Your task to perform on an android device: Open Wikipedia Image 0: 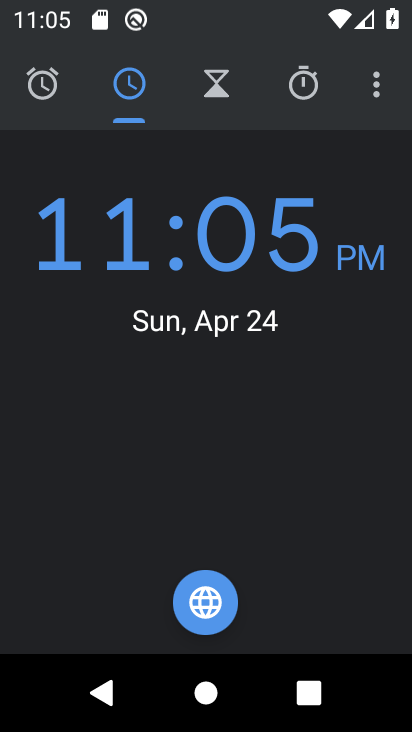
Step 0: drag from (266, 496) to (306, 24)
Your task to perform on an android device: Open Wikipedia Image 1: 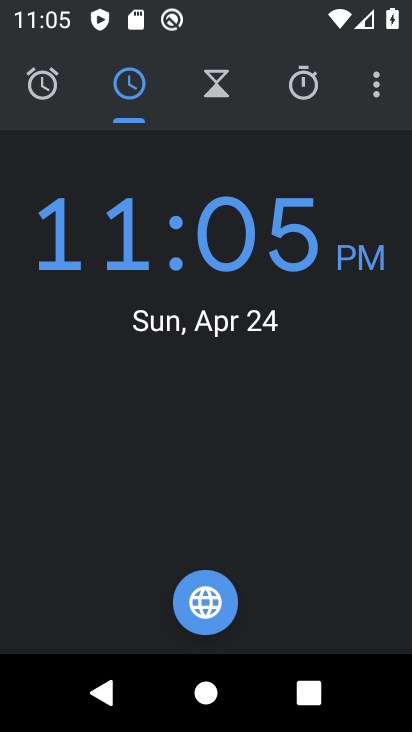
Step 1: press home button
Your task to perform on an android device: Open Wikipedia Image 2: 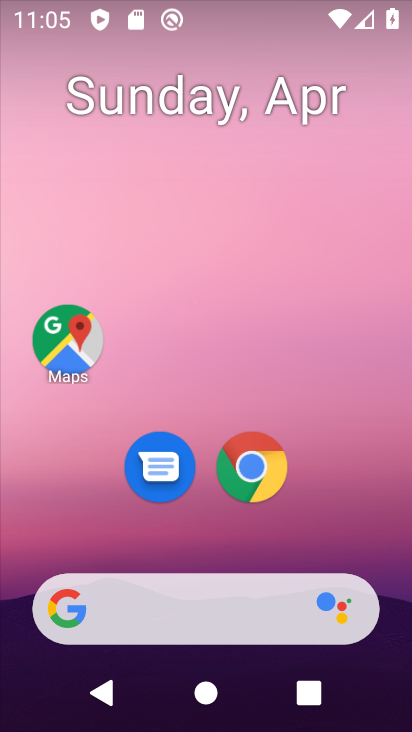
Step 2: click (172, 601)
Your task to perform on an android device: Open Wikipedia Image 3: 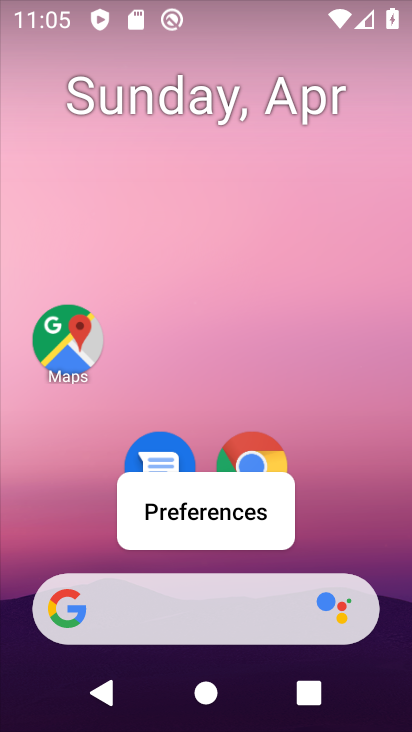
Step 3: click (199, 612)
Your task to perform on an android device: Open Wikipedia Image 4: 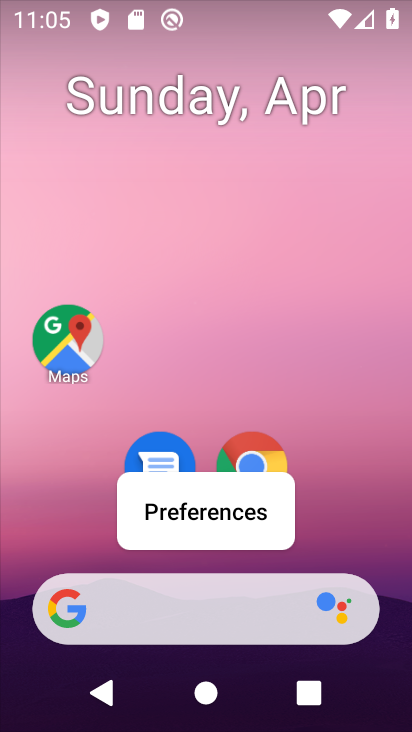
Step 4: click (373, 432)
Your task to perform on an android device: Open Wikipedia Image 5: 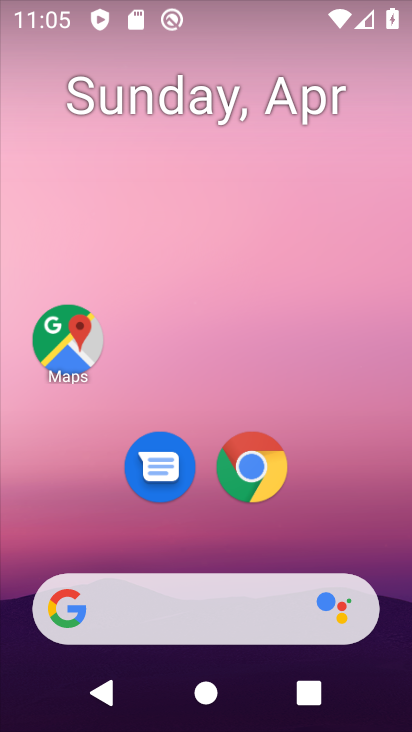
Step 5: drag from (192, 399) to (268, 36)
Your task to perform on an android device: Open Wikipedia Image 6: 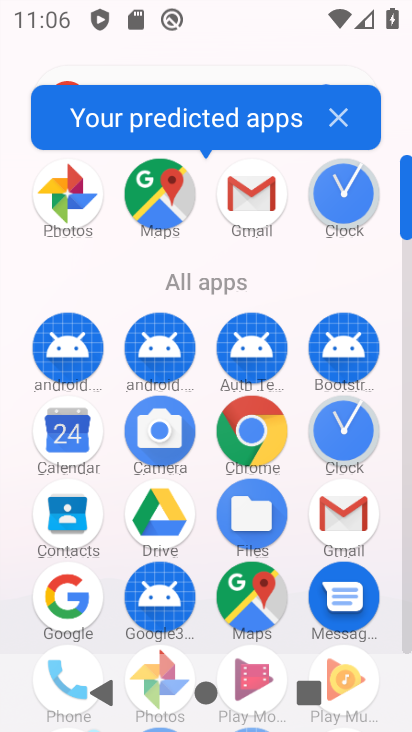
Step 6: click (342, 122)
Your task to perform on an android device: Open Wikipedia Image 7: 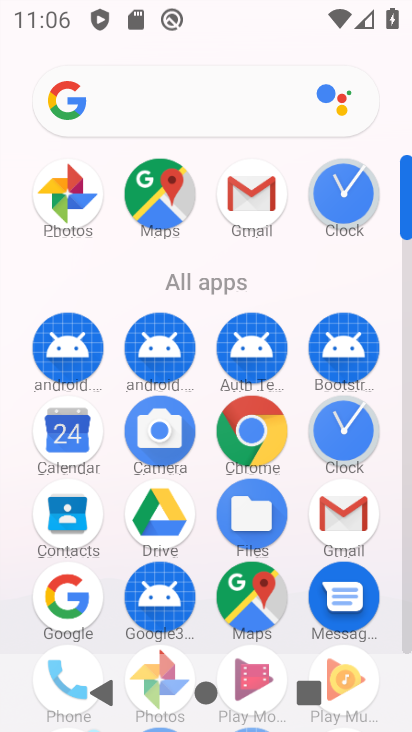
Step 7: click (170, 83)
Your task to perform on an android device: Open Wikipedia Image 8: 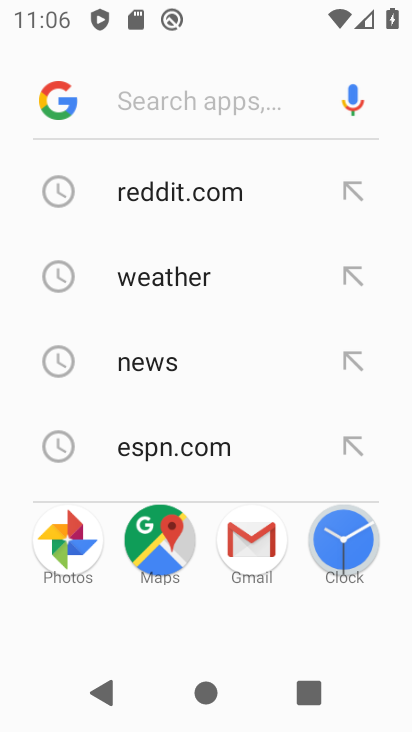
Step 8: drag from (167, 392) to (275, 98)
Your task to perform on an android device: Open Wikipedia Image 9: 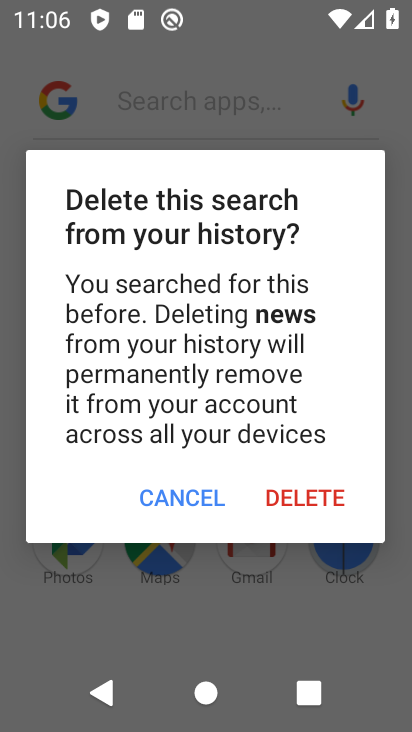
Step 9: click (175, 98)
Your task to perform on an android device: Open Wikipedia Image 10: 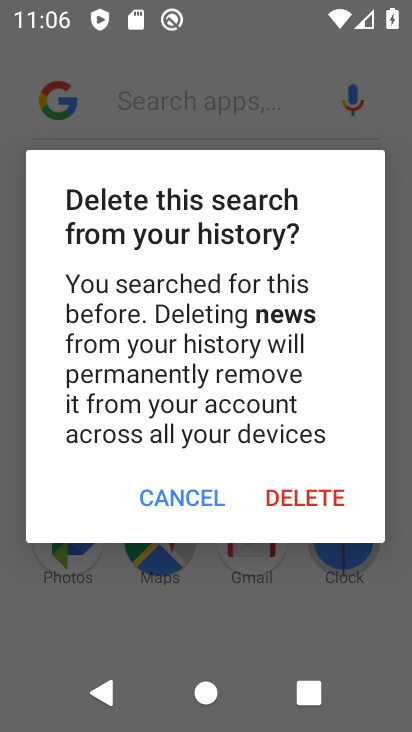
Step 10: type "wikipedia"
Your task to perform on an android device: Open Wikipedia Image 11: 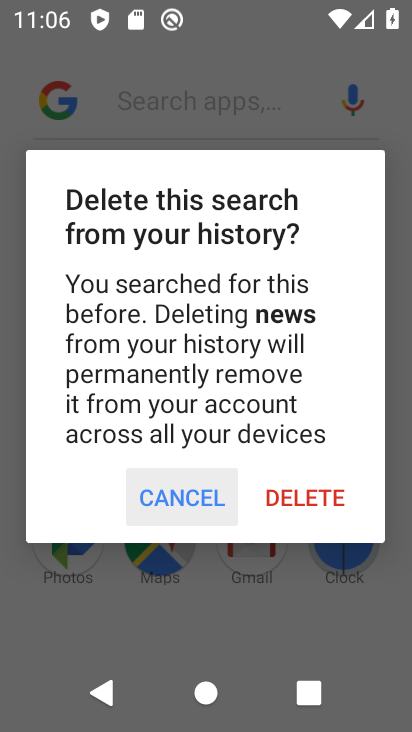
Step 11: click (184, 501)
Your task to perform on an android device: Open Wikipedia Image 12: 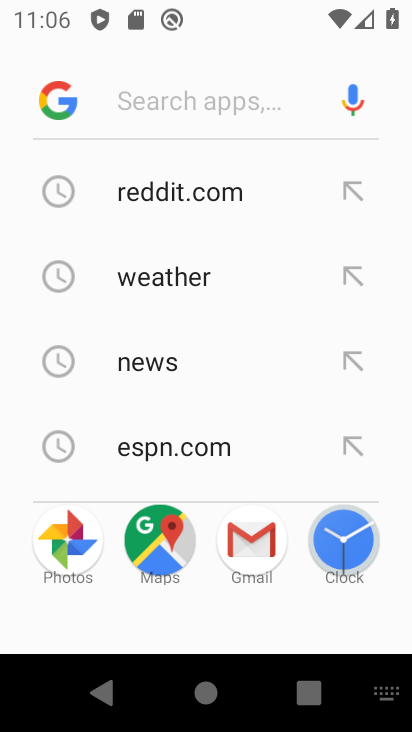
Step 12: type "wikipedia"
Your task to perform on an android device: Open Wikipedia Image 13: 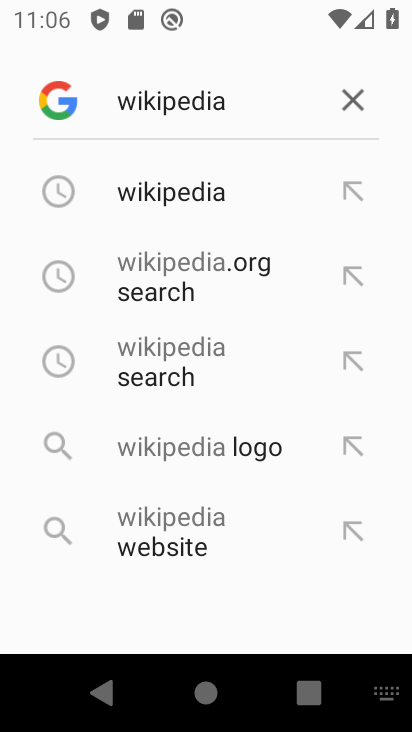
Step 13: click (169, 191)
Your task to perform on an android device: Open Wikipedia Image 14: 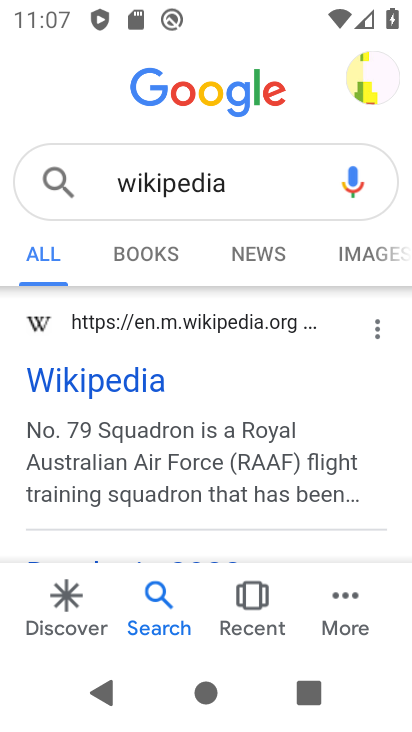
Step 14: click (80, 384)
Your task to perform on an android device: Open Wikipedia Image 15: 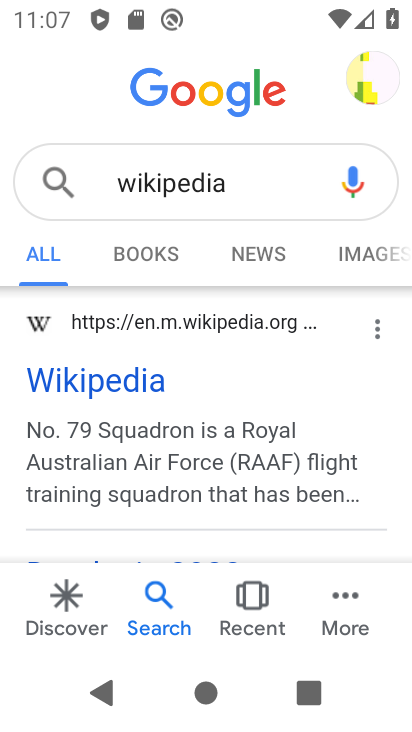
Step 15: task complete